Your task to perform on an android device: What's the weather today? Image 0: 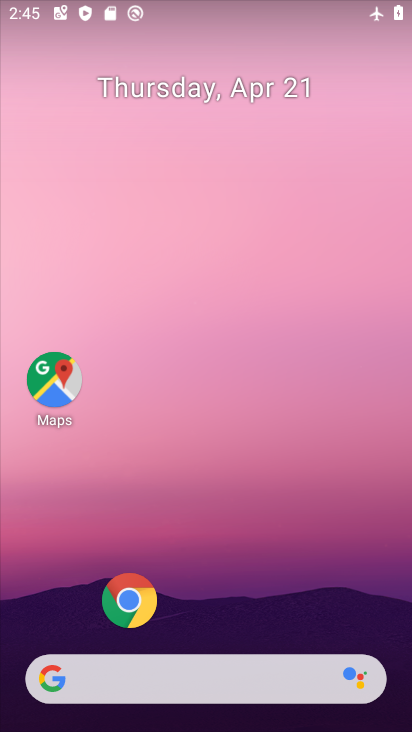
Step 0: click (113, 686)
Your task to perform on an android device: What's the weather today? Image 1: 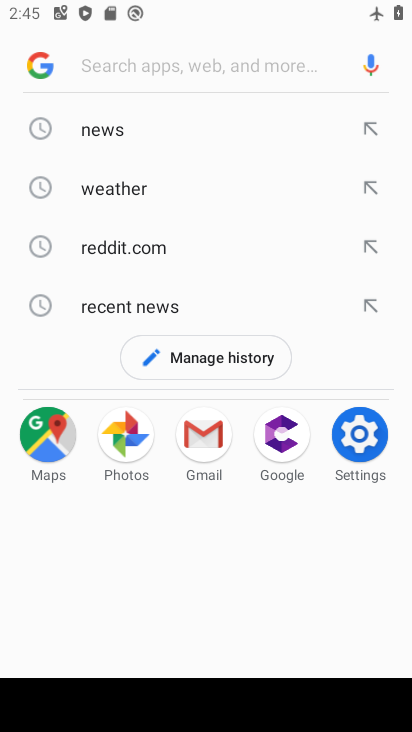
Step 1: click (109, 201)
Your task to perform on an android device: What's the weather today? Image 2: 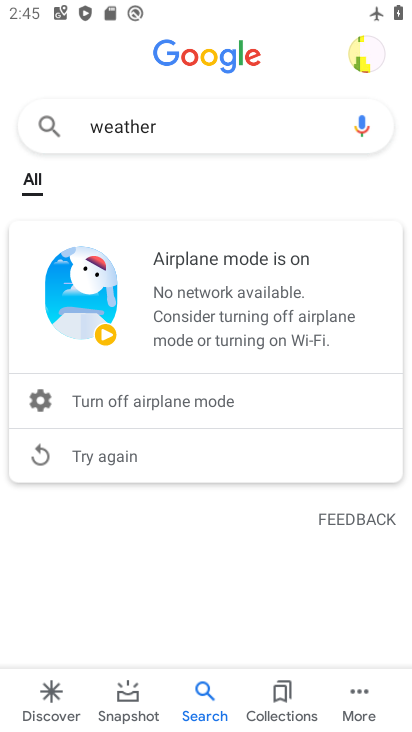
Step 2: task complete